Your task to perform on an android device: set the stopwatch Image 0: 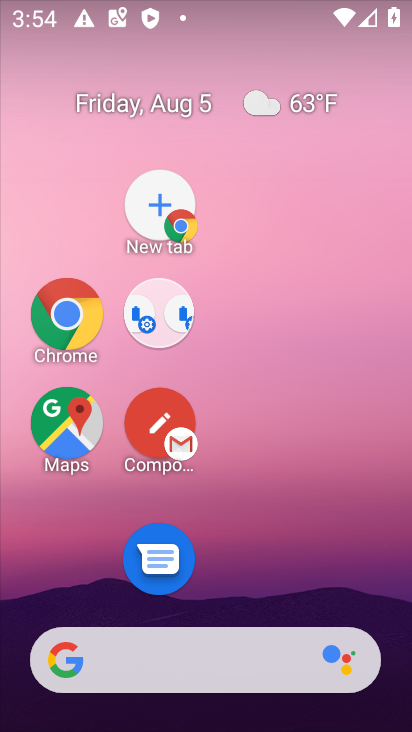
Step 0: drag from (215, 509) to (186, 259)
Your task to perform on an android device: set the stopwatch Image 1: 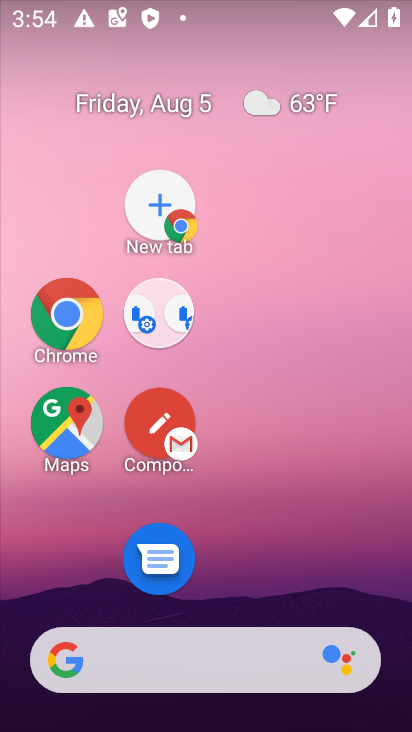
Step 1: drag from (201, 559) to (194, 160)
Your task to perform on an android device: set the stopwatch Image 2: 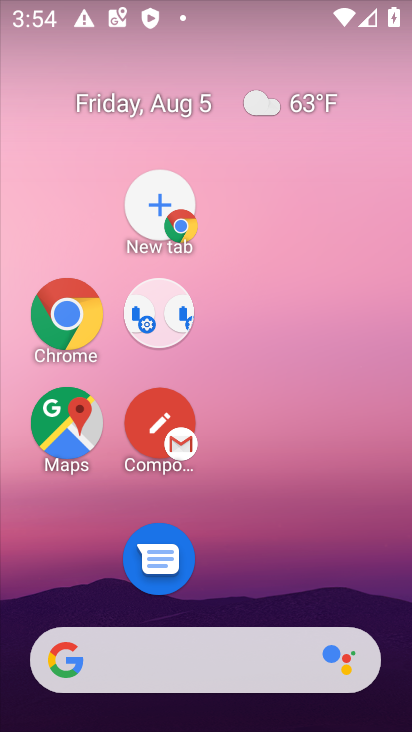
Step 2: drag from (240, 278) to (216, 81)
Your task to perform on an android device: set the stopwatch Image 3: 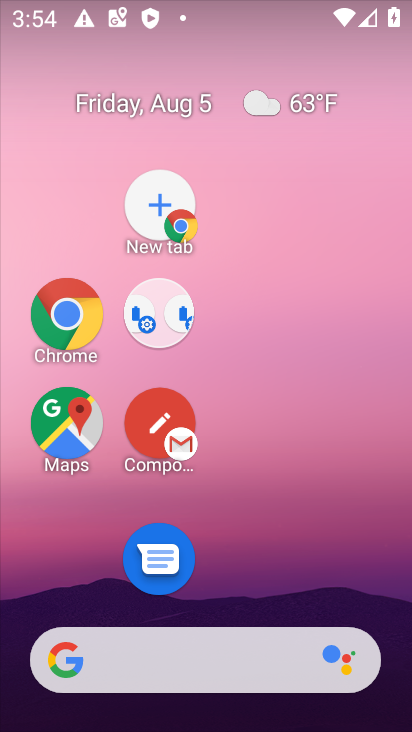
Step 3: drag from (211, 438) to (196, 244)
Your task to perform on an android device: set the stopwatch Image 4: 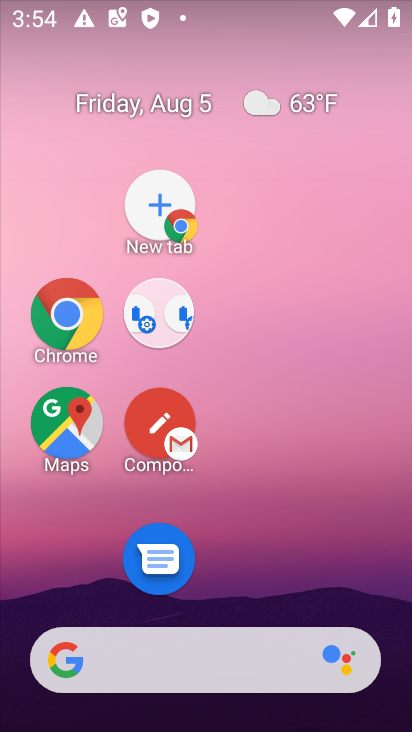
Step 4: drag from (187, 481) to (156, 349)
Your task to perform on an android device: set the stopwatch Image 5: 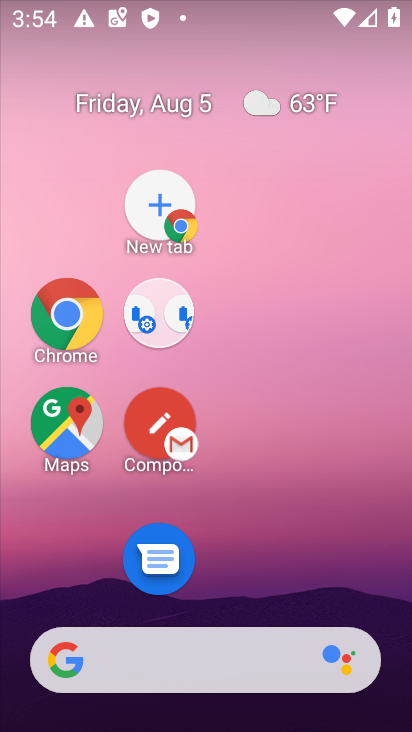
Step 5: drag from (247, 566) to (225, 305)
Your task to perform on an android device: set the stopwatch Image 6: 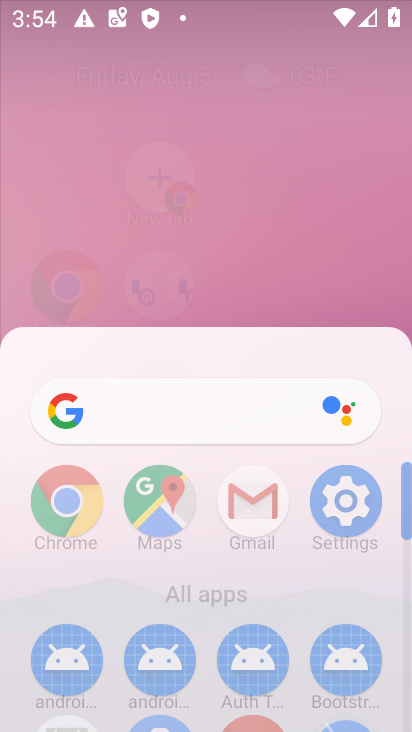
Step 6: drag from (240, 411) to (230, 297)
Your task to perform on an android device: set the stopwatch Image 7: 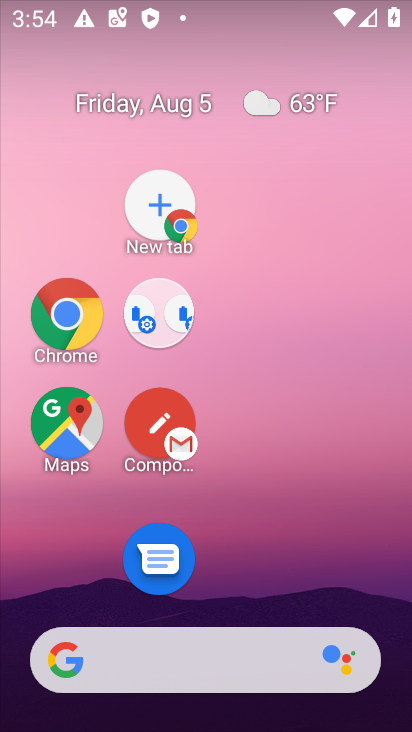
Step 7: click (163, 301)
Your task to perform on an android device: set the stopwatch Image 8: 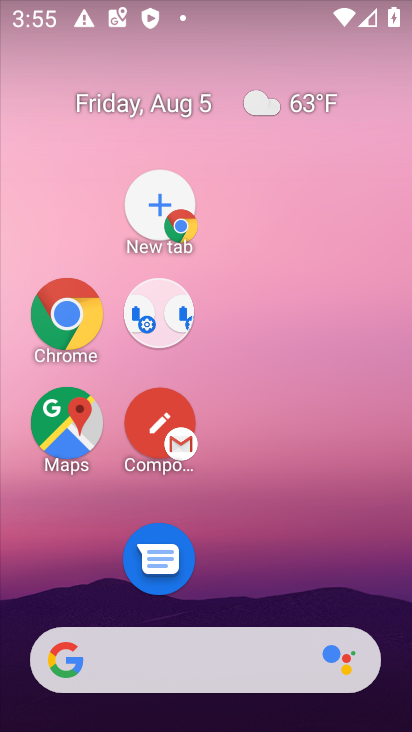
Step 8: drag from (256, 547) to (234, 352)
Your task to perform on an android device: set the stopwatch Image 9: 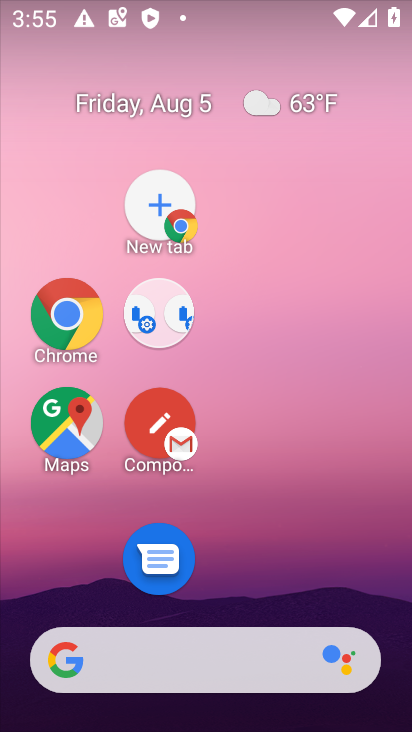
Step 9: drag from (239, 635) to (211, 356)
Your task to perform on an android device: set the stopwatch Image 10: 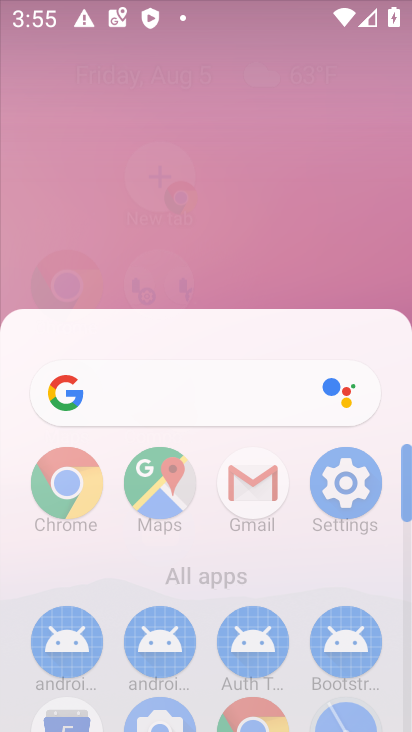
Step 10: drag from (241, 359) to (229, 108)
Your task to perform on an android device: set the stopwatch Image 11: 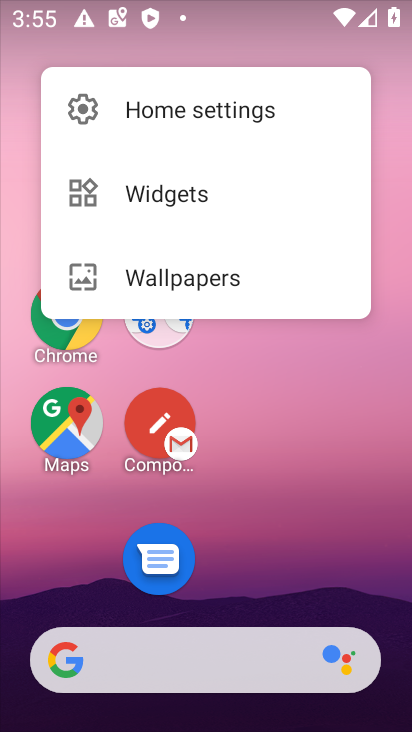
Step 11: drag from (193, 404) to (172, 191)
Your task to perform on an android device: set the stopwatch Image 12: 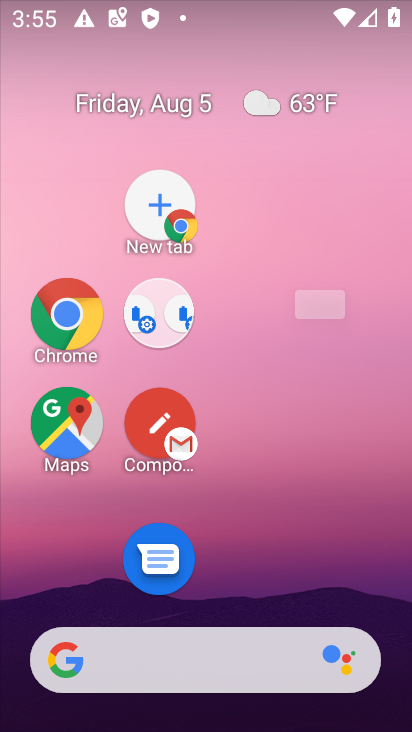
Step 12: drag from (262, 524) to (283, 408)
Your task to perform on an android device: set the stopwatch Image 13: 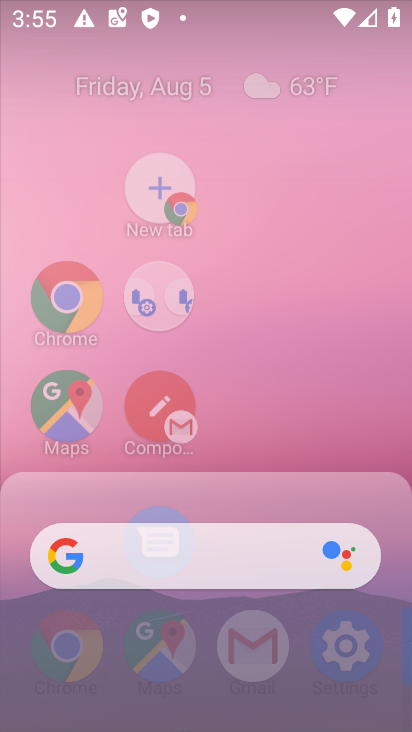
Step 13: drag from (271, 521) to (245, 122)
Your task to perform on an android device: set the stopwatch Image 14: 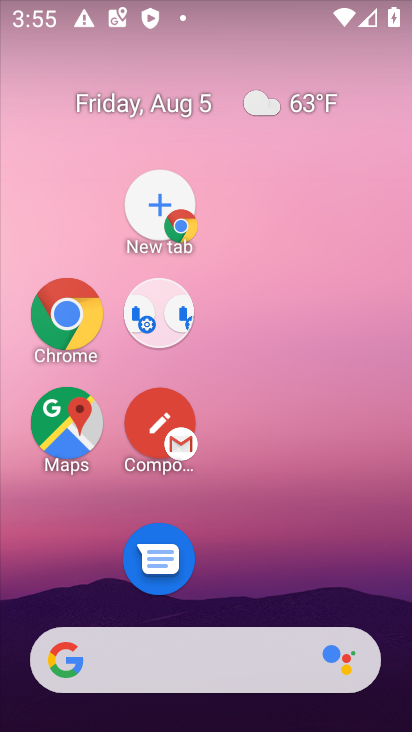
Step 14: drag from (253, 493) to (190, 116)
Your task to perform on an android device: set the stopwatch Image 15: 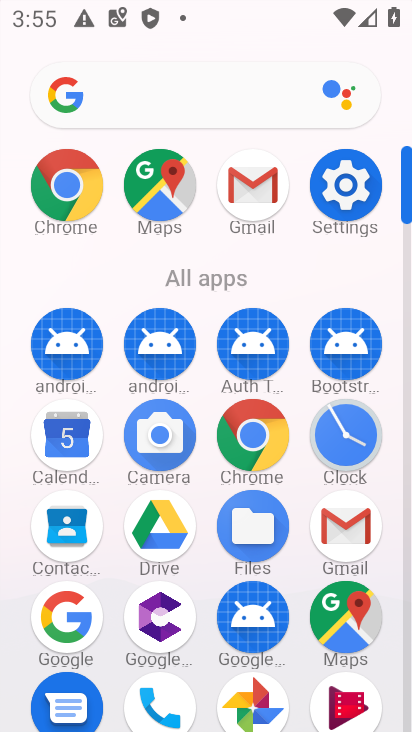
Step 15: drag from (221, 542) to (185, 89)
Your task to perform on an android device: set the stopwatch Image 16: 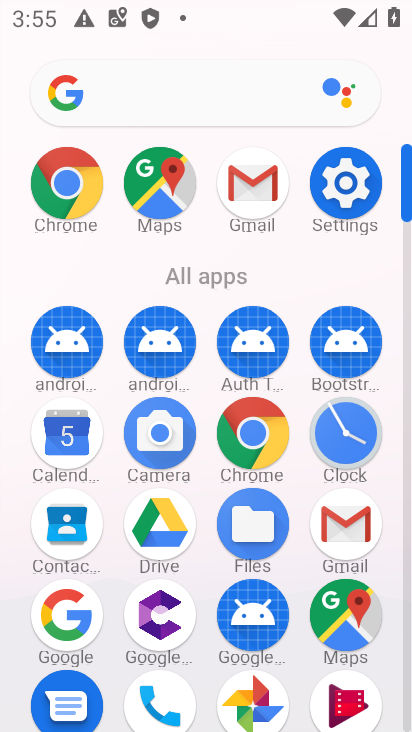
Step 16: drag from (219, 304) to (201, 89)
Your task to perform on an android device: set the stopwatch Image 17: 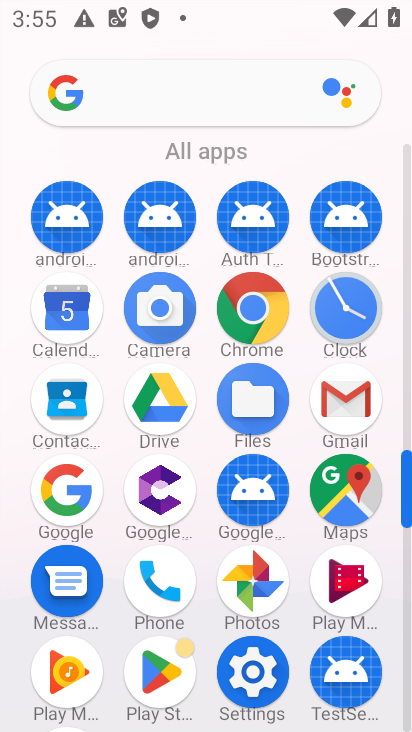
Step 17: click (326, 303)
Your task to perform on an android device: set the stopwatch Image 18: 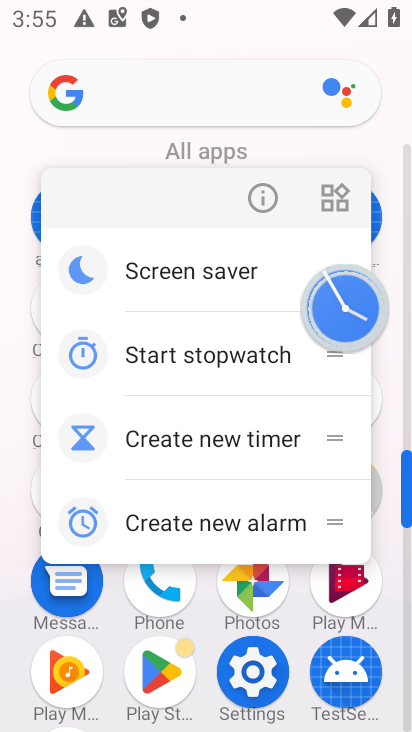
Step 18: click (326, 303)
Your task to perform on an android device: set the stopwatch Image 19: 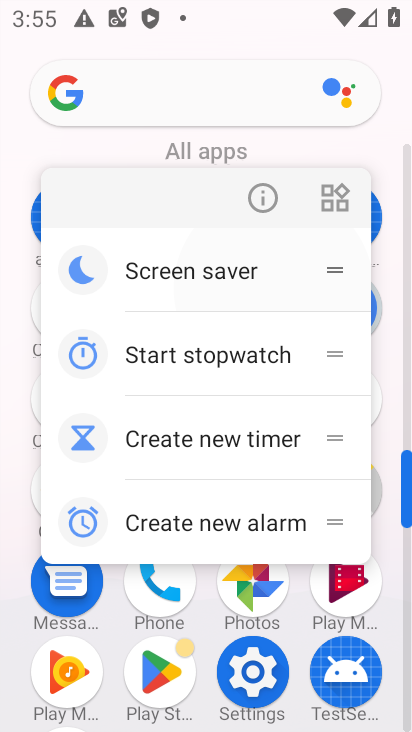
Step 19: click (326, 303)
Your task to perform on an android device: set the stopwatch Image 20: 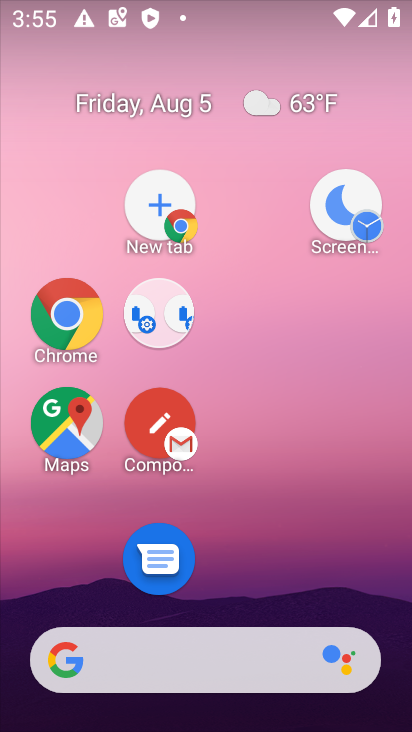
Step 20: drag from (320, 434) to (329, 488)
Your task to perform on an android device: set the stopwatch Image 21: 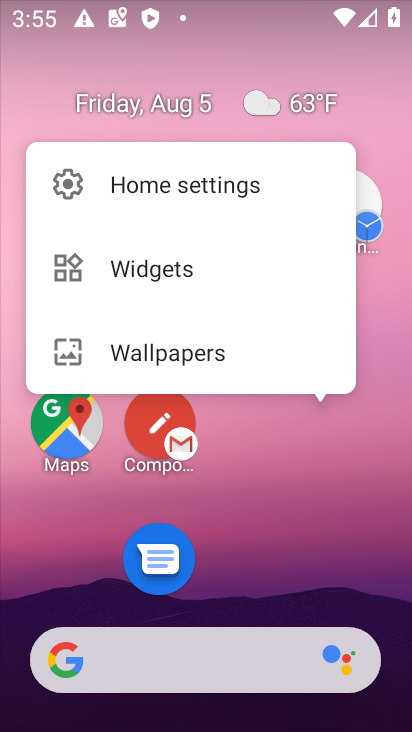
Step 21: click (215, 99)
Your task to perform on an android device: set the stopwatch Image 22: 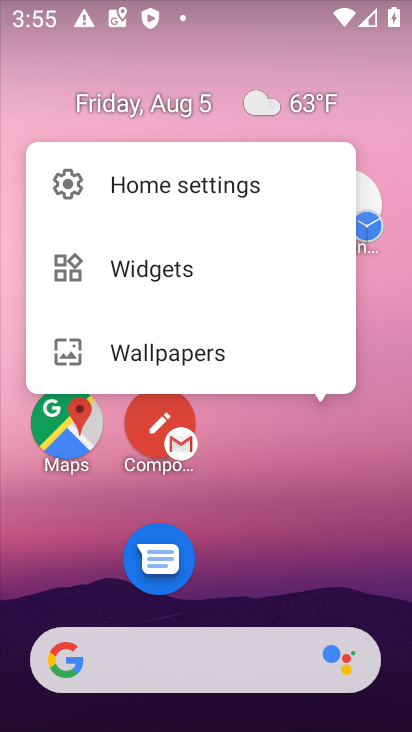
Step 22: drag from (193, 505) to (168, 370)
Your task to perform on an android device: set the stopwatch Image 23: 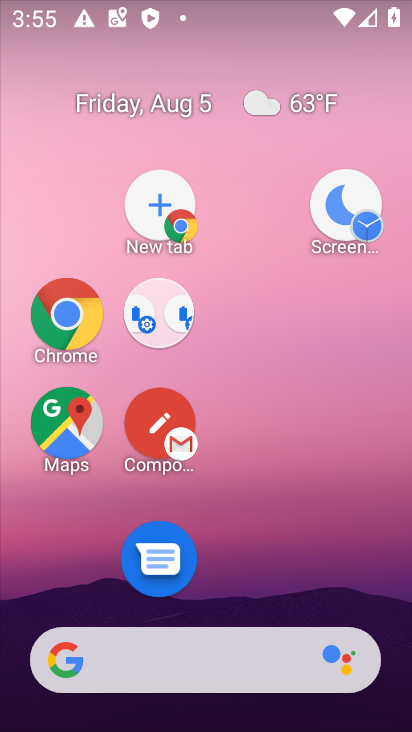
Step 23: drag from (246, 456) to (223, 293)
Your task to perform on an android device: set the stopwatch Image 24: 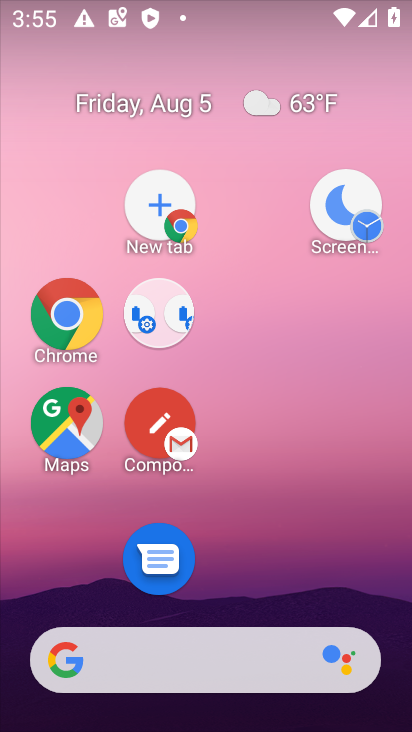
Step 24: drag from (224, 615) to (167, 341)
Your task to perform on an android device: set the stopwatch Image 25: 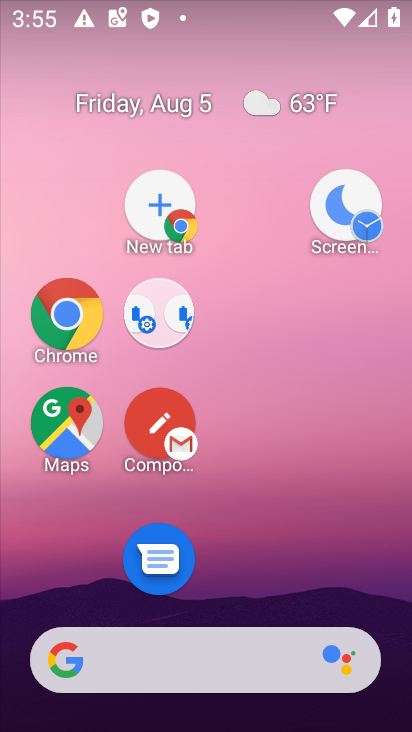
Step 25: drag from (303, 623) to (257, 254)
Your task to perform on an android device: set the stopwatch Image 26: 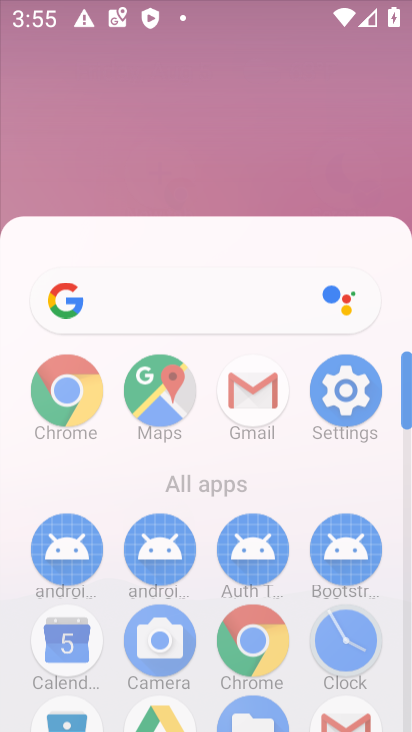
Step 26: drag from (324, 571) to (286, 257)
Your task to perform on an android device: set the stopwatch Image 27: 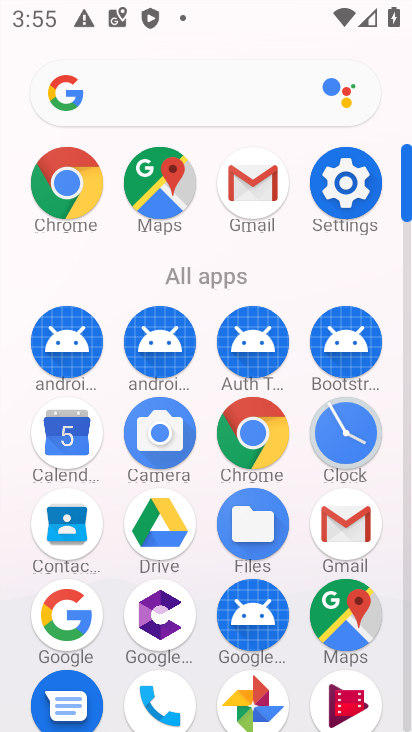
Step 27: drag from (348, 614) to (308, 286)
Your task to perform on an android device: set the stopwatch Image 28: 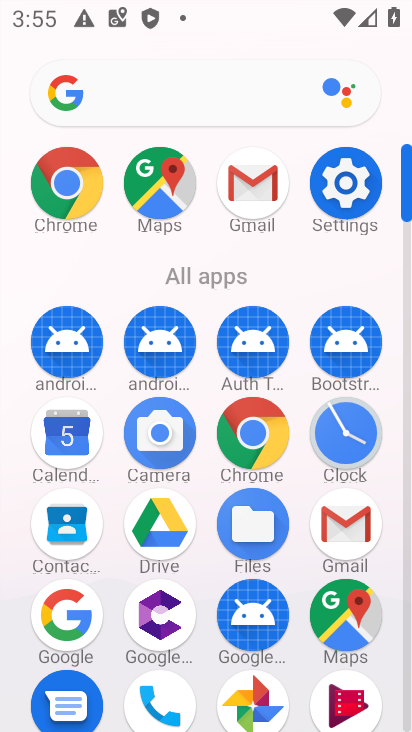
Step 28: click (343, 191)
Your task to perform on an android device: set the stopwatch Image 29: 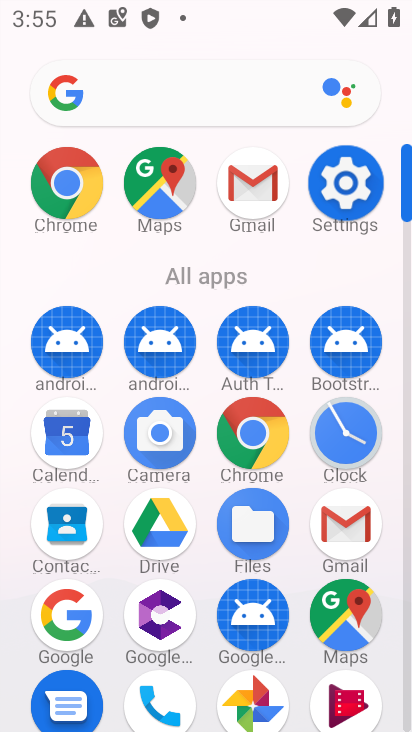
Step 29: click (344, 192)
Your task to perform on an android device: set the stopwatch Image 30: 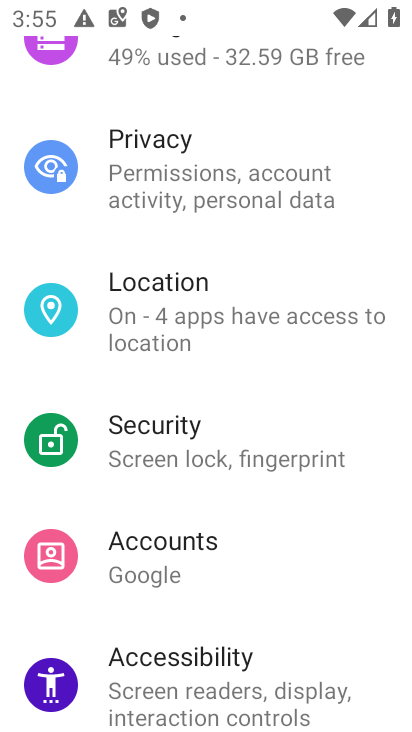
Step 30: press back button
Your task to perform on an android device: set the stopwatch Image 31: 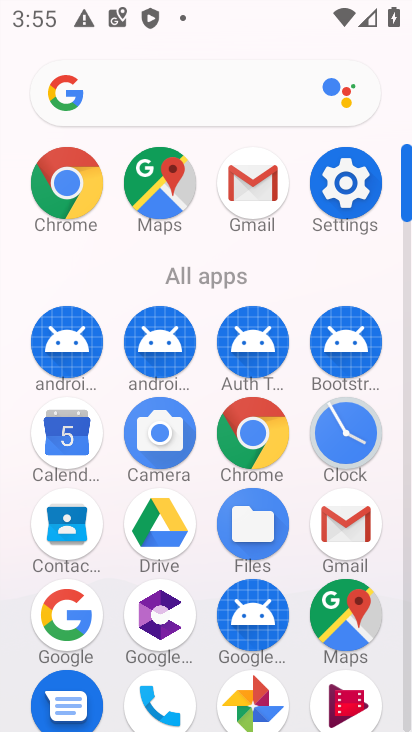
Step 31: click (346, 443)
Your task to perform on an android device: set the stopwatch Image 32: 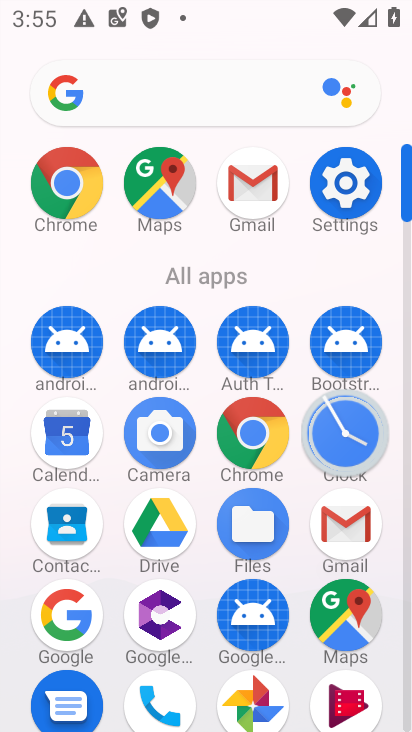
Step 32: click (344, 441)
Your task to perform on an android device: set the stopwatch Image 33: 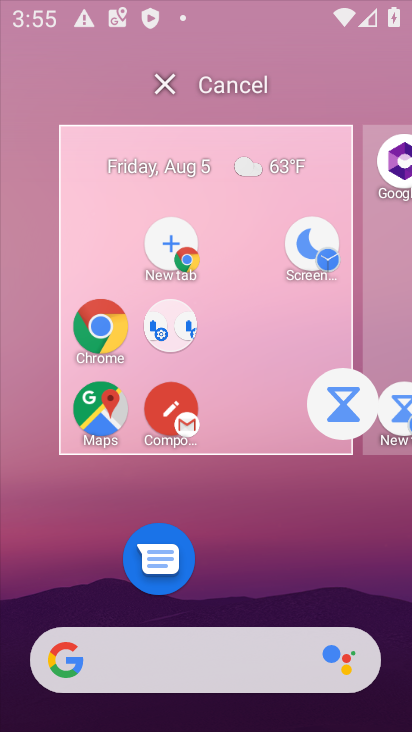
Step 33: click (344, 444)
Your task to perform on an android device: set the stopwatch Image 34: 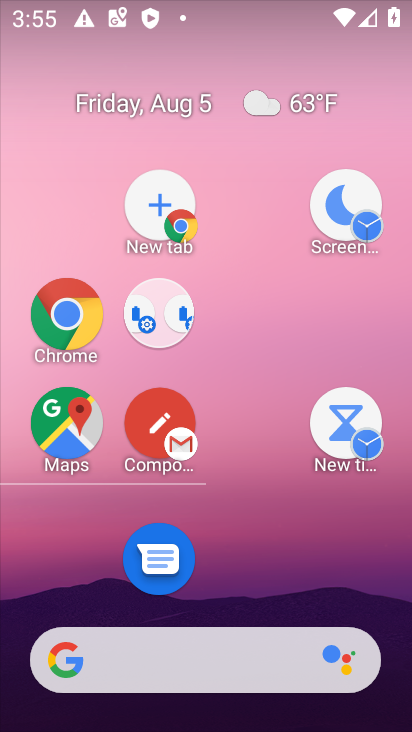
Step 34: drag from (293, 439) to (222, 57)
Your task to perform on an android device: set the stopwatch Image 35: 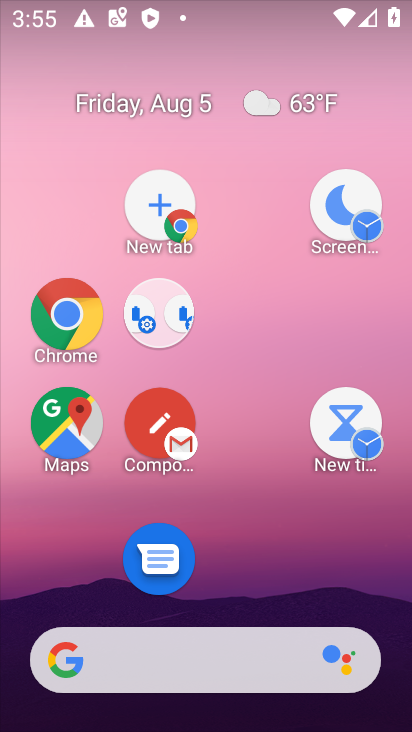
Step 35: drag from (288, 407) to (234, 77)
Your task to perform on an android device: set the stopwatch Image 36: 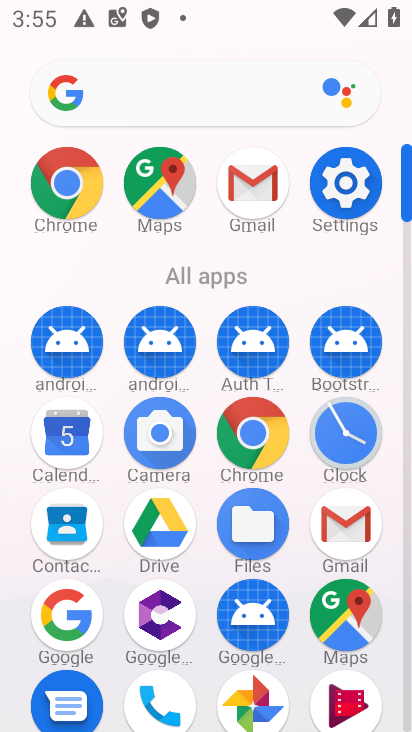
Step 36: drag from (254, 360) to (225, 152)
Your task to perform on an android device: set the stopwatch Image 37: 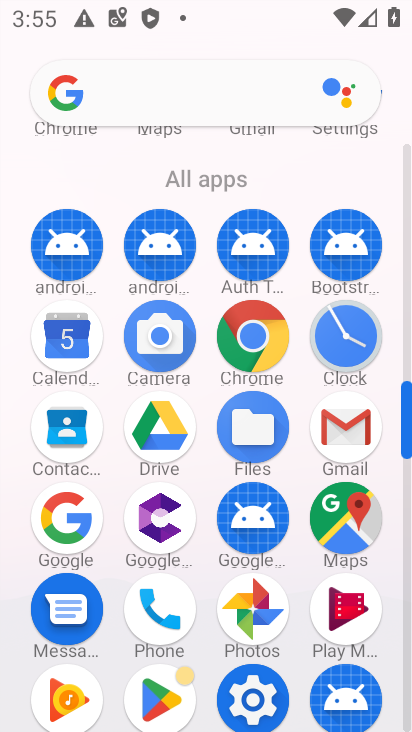
Step 37: click (344, 341)
Your task to perform on an android device: set the stopwatch Image 38: 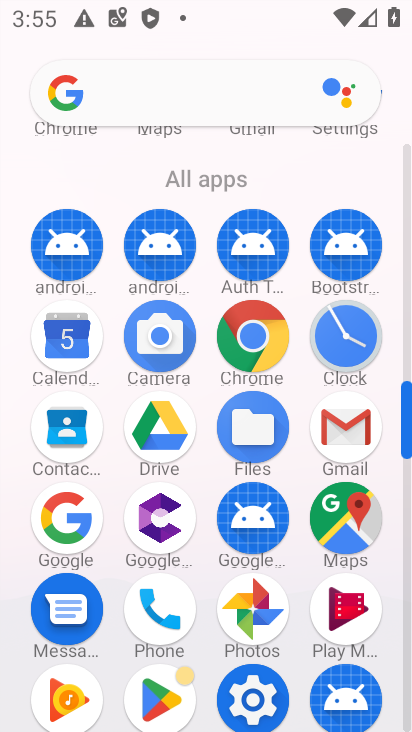
Step 38: click (342, 335)
Your task to perform on an android device: set the stopwatch Image 39: 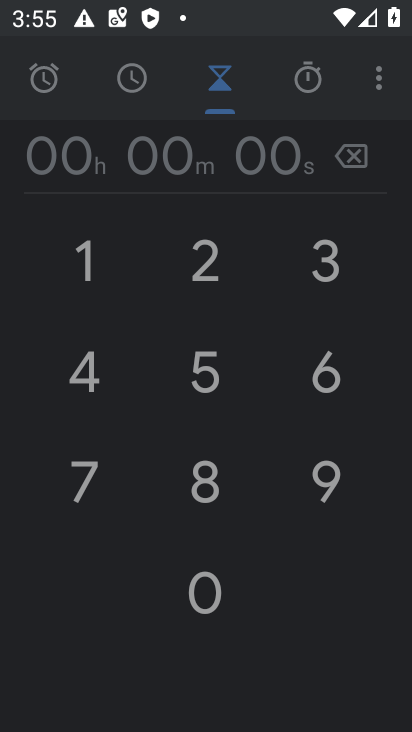
Step 39: click (348, 341)
Your task to perform on an android device: set the stopwatch Image 40: 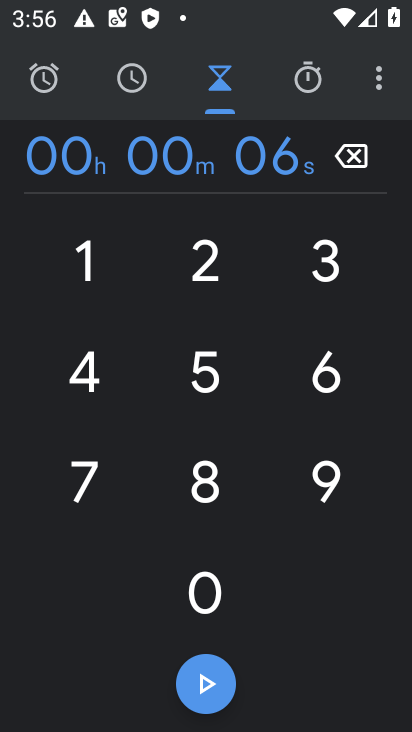
Step 40: click (317, 71)
Your task to perform on an android device: set the stopwatch Image 41: 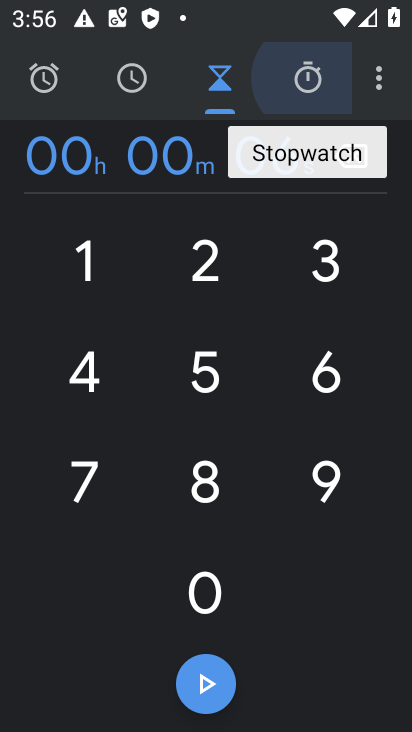
Step 41: click (314, 80)
Your task to perform on an android device: set the stopwatch Image 42: 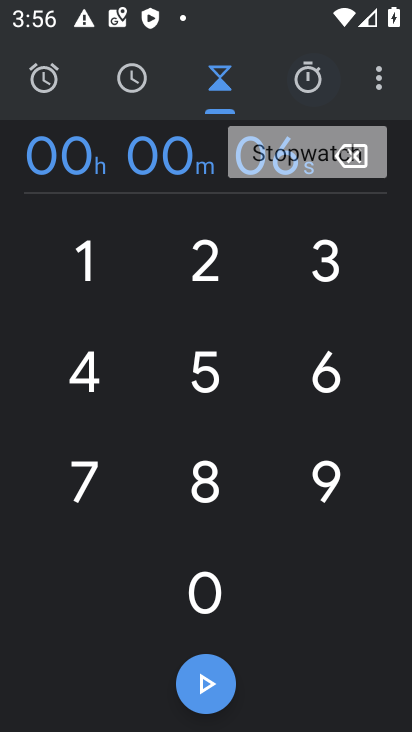
Step 42: click (314, 81)
Your task to perform on an android device: set the stopwatch Image 43: 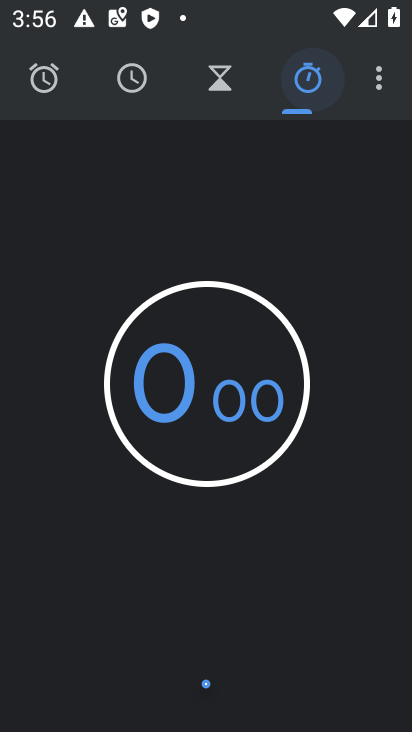
Step 43: click (315, 84)
Your task to perform on an android device: set the stopwatch Image 44: 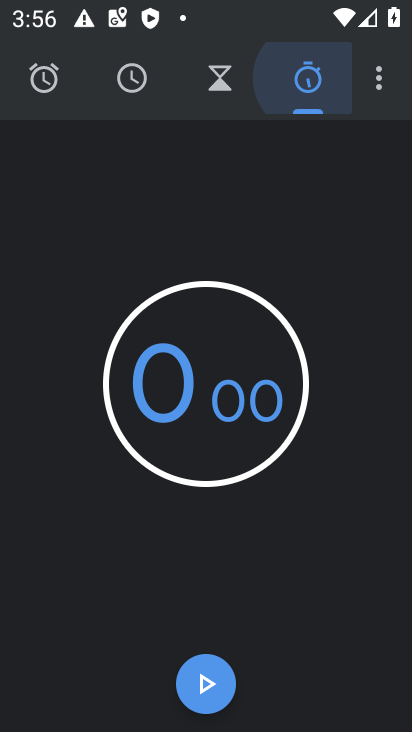
Step 44: click (315, 84)
Your task to perform on an android device: set the stopwatch Image 45: 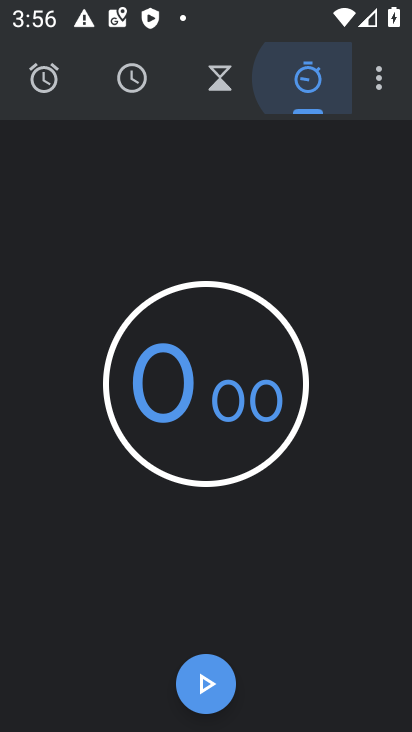
Step 45: click (316, 85)
Your task to perform on an android device: set the stopwatch Image 46: 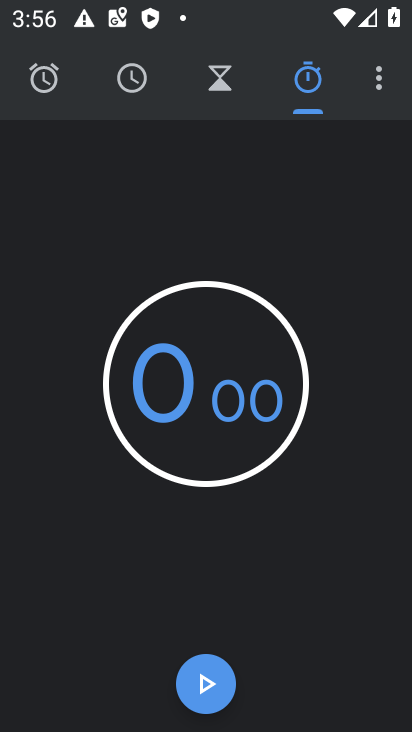
Step 46: click (204, 692)
Your task to perform on an android device: set the stopwatch Image 47: 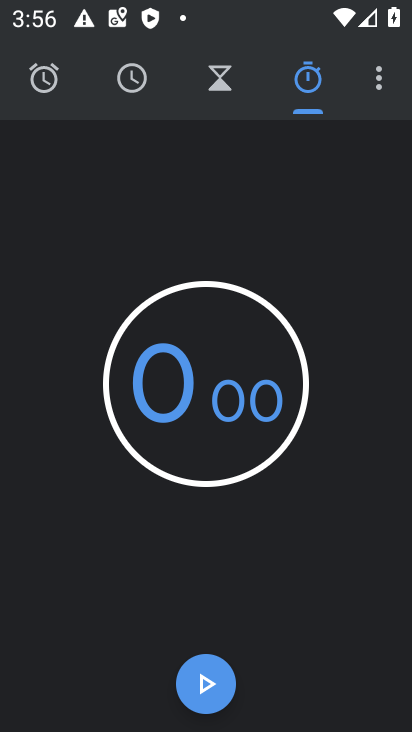
Step 47: click (204, 692)
Your task to perform on an android device: set the stopwatch Image 48: 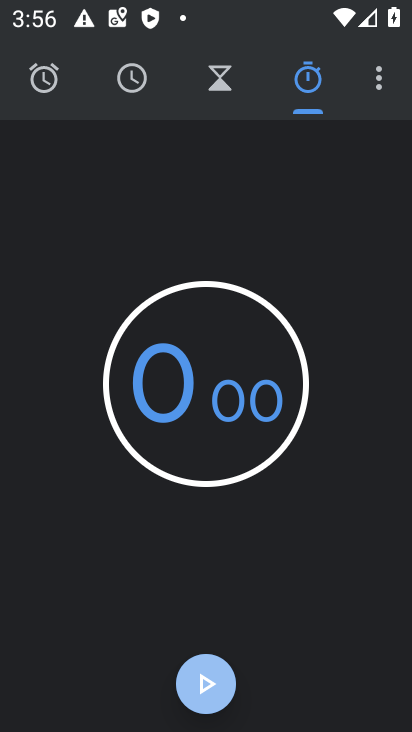
Step 48: click (204, 692)
Your task to perform on an android device: set the stopwatch Image 49: 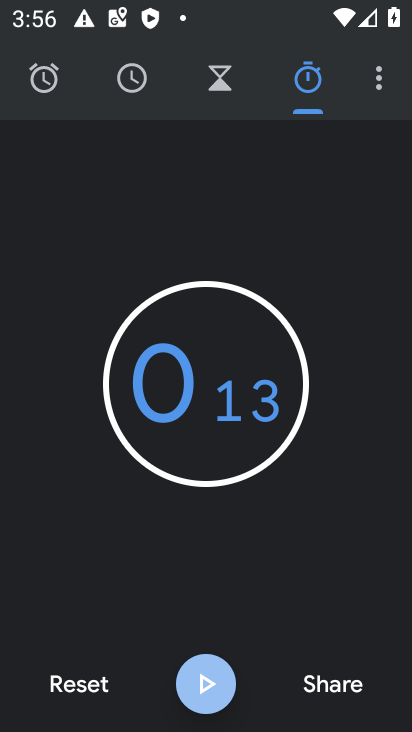
Step 49: click (206, 697)
Your task to perform on an android device: set the stopwatch Image 50: 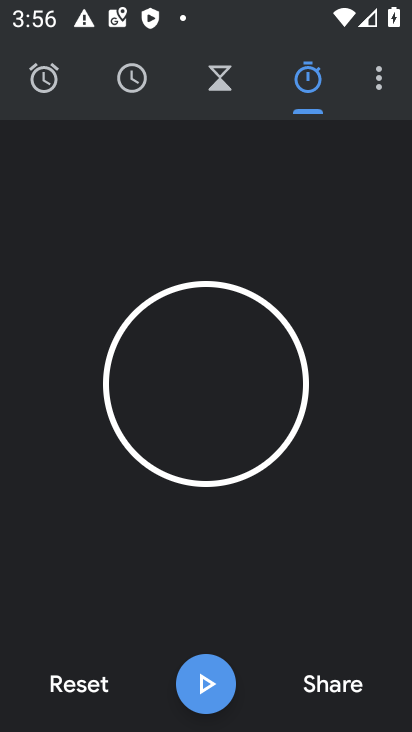
Step 50: click (211, 677)
Your task to perform on an android device: set the stopwatch Image 51: 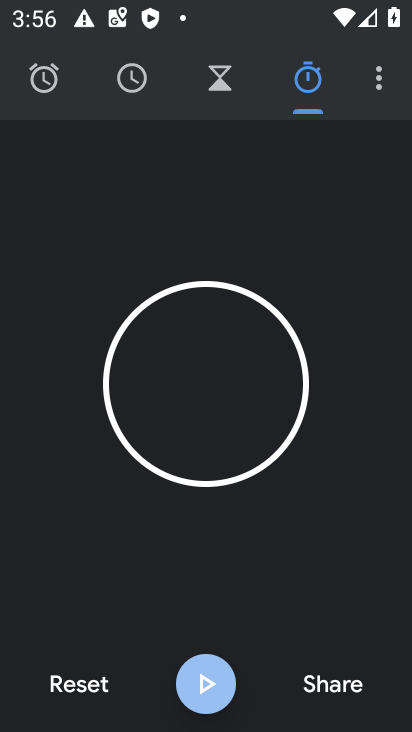
Step 51: click (209, 677)
Your task to perform on an android device: set the stopwatch Image 52: 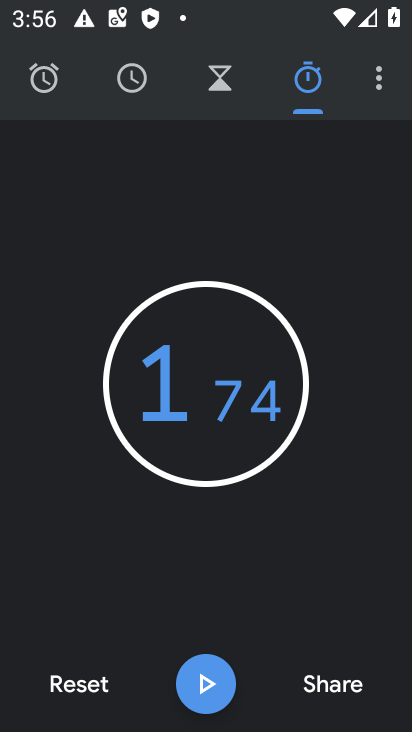
Step 52: click (204, 684)
Your task to perform on an android device: set the stopwatch Image 53: 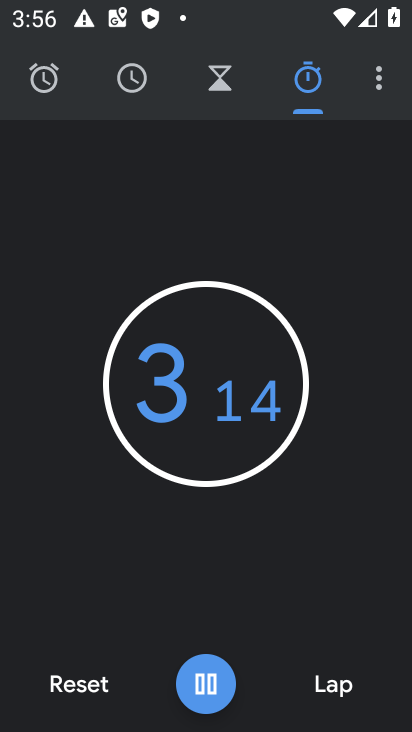
Step 53: click (208, 684)
Your task to perform on an android device: set the stopwatch Image 54: 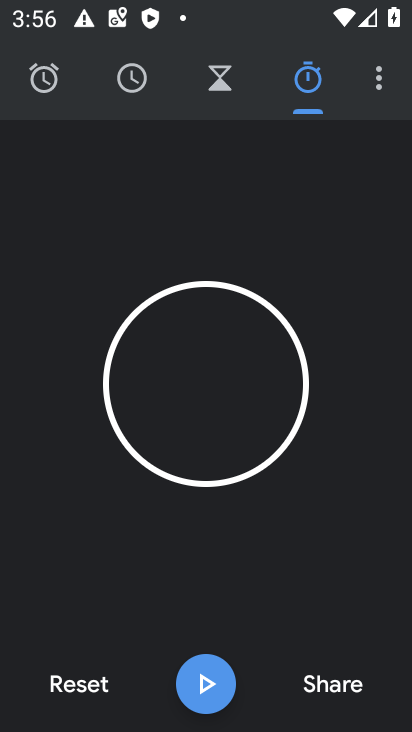
Step 54: task complete